Your task to perform on an android device: open device folders in google photos Image 0: 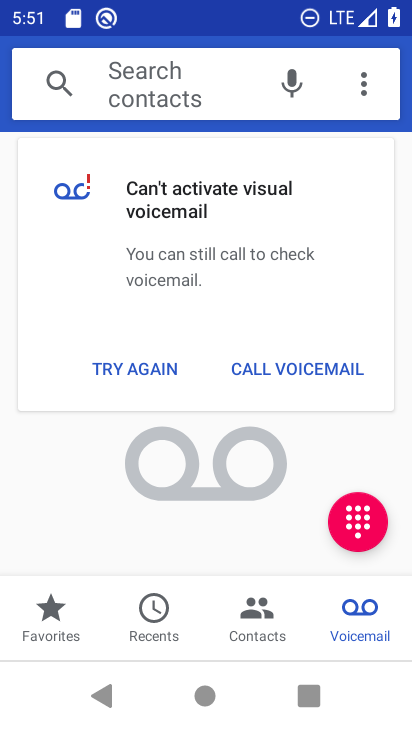
Step 0: press home button
Your task to perform on an android device: open device folders in google photos Image 1: 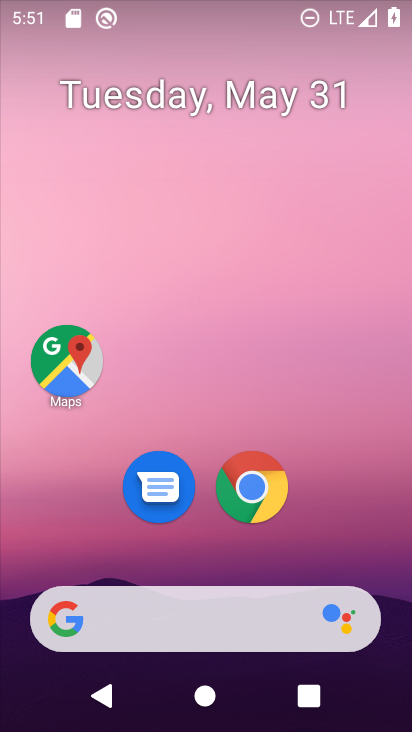
Step 1: drag from (330, 521) to (227, 65)
Your task to perform on an android device: open device folders in google photos Image 2: 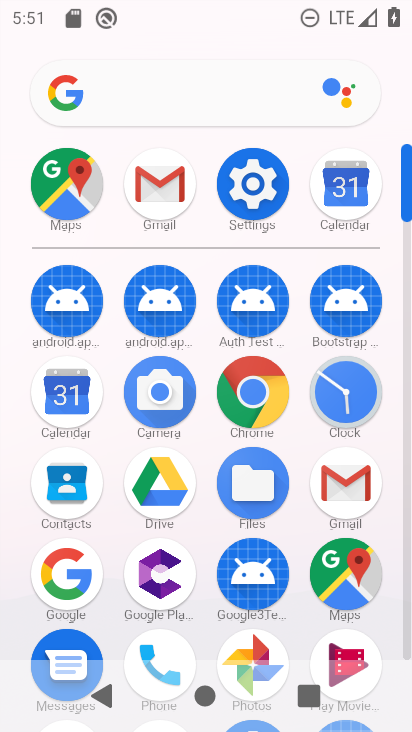
Step 2: click (261, 646)
Your task to perform on an android device: open device folders in google photos Image 3: 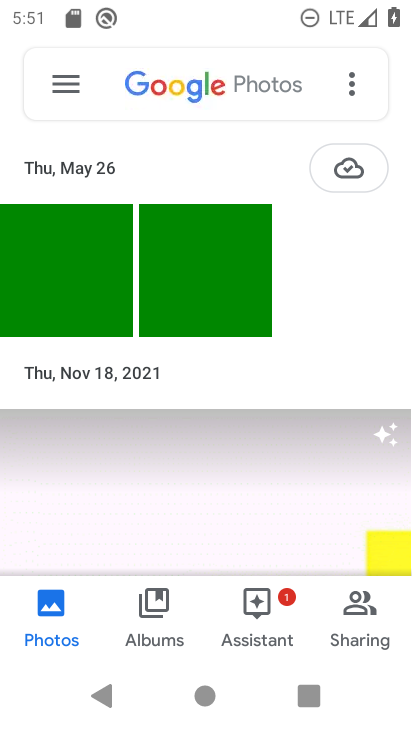
Step 3: click (58, 74)
Your task to perform on an android device: open device folders in google photos Image 4: 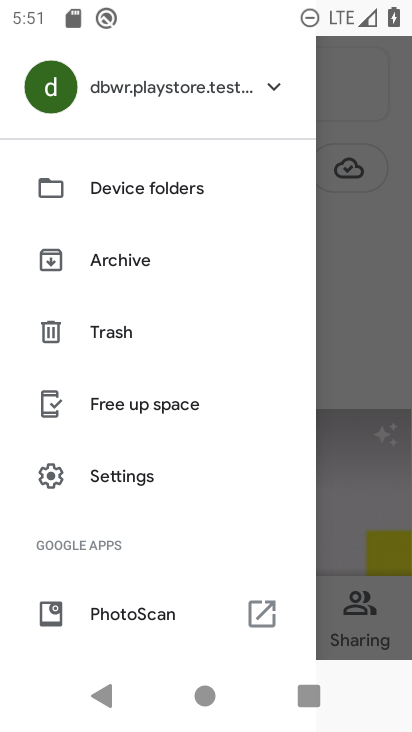
Step 4: click (117, 183)
Your task to perform on an android device: open device folders in google photos Image 5: 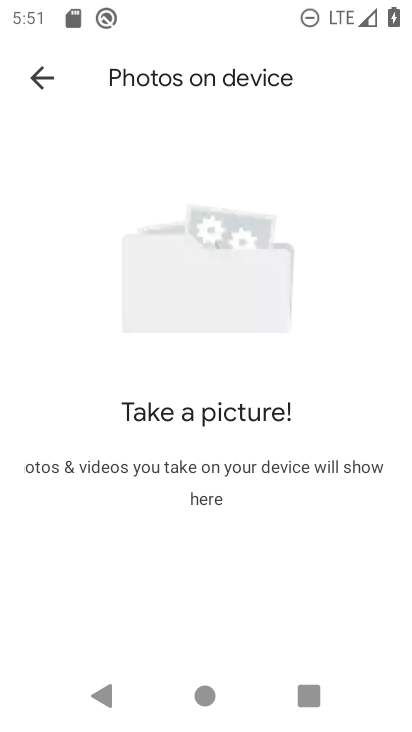
Step 5: task complete